Your task to perform on an android device: create a new album in the google photos Image 0: 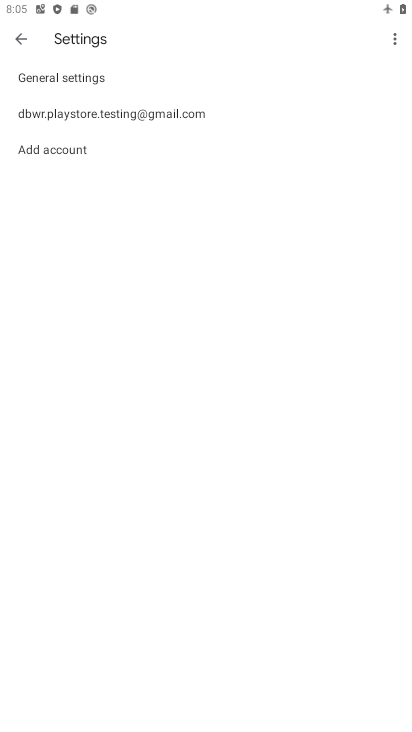
Step 0: press home button
Your task to perform on an android device: create a new album in the google photos Image 1: 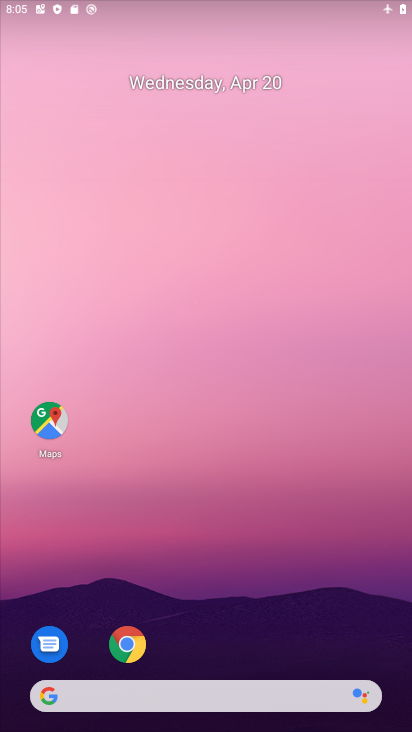
Step 1: drag from (342, 648) to (311, 429)
Your task to perform on an android device: create a new album in the google photos Image 2: 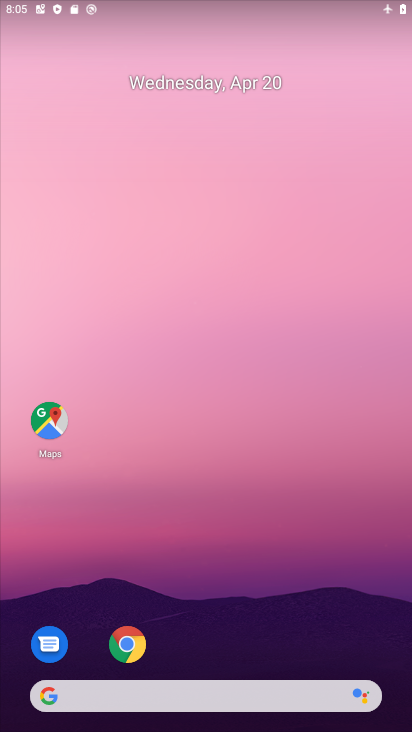
Step 2: drag from (300, 634) to (246, 28)
Your task to perform on an android device: create a new album in the google photos Image 3: 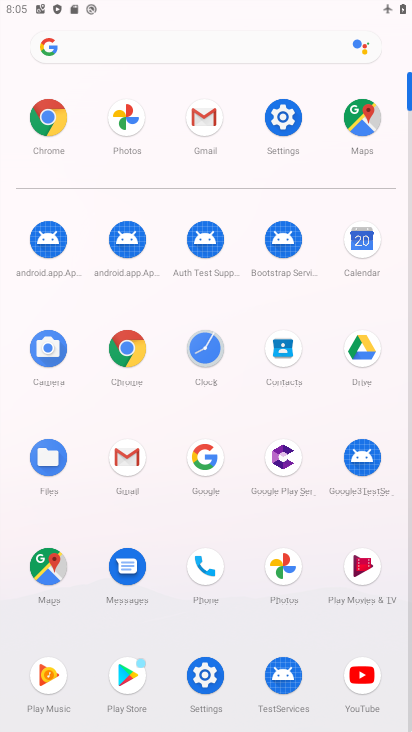
Step 3: click (279, 575)
Your task to perform on an android device: create a new album in the google photos Image 4: 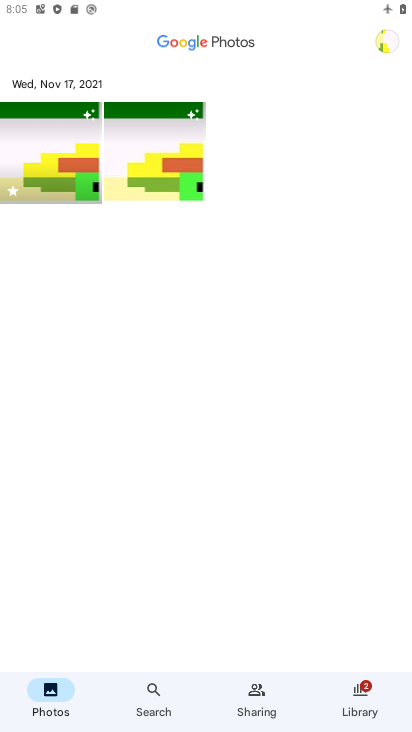
Step 4: click (31, 143)
Your task to perform on an android device: create a new album in the google photos Image 5: 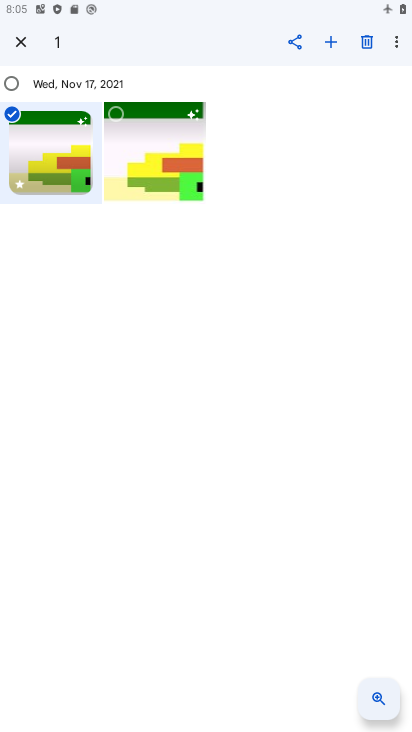
Step 5: click (331, 39)
Your task to perform on an android device: create a new album in the google photos Image 6: 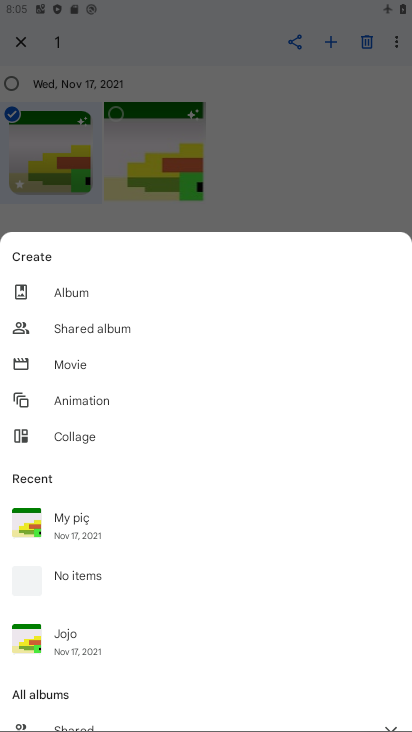
Step 6: click (87, 286)
Your task to perform on an android device: create a new album in the google photos Image 7: 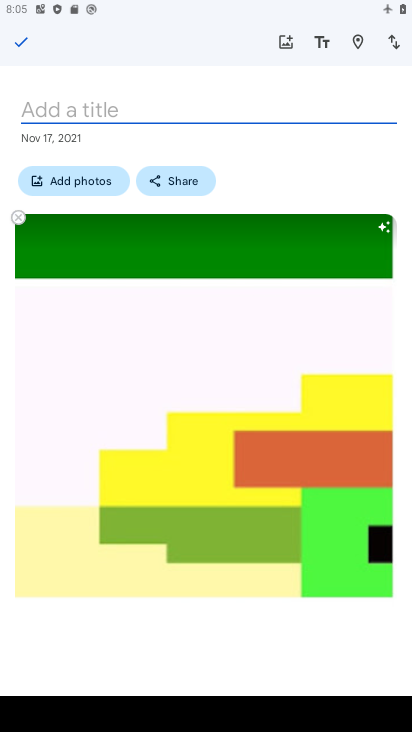
Step 7: type "Raw"
Your task to perform on an android device: create a new album in the google photos Image 8: 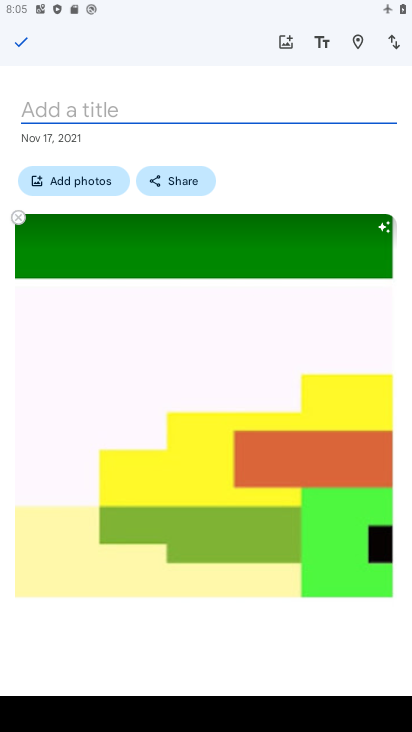
Step 8: click (27, 40)
Your task to perform on an android device: create a new album in the google photos Image 9: 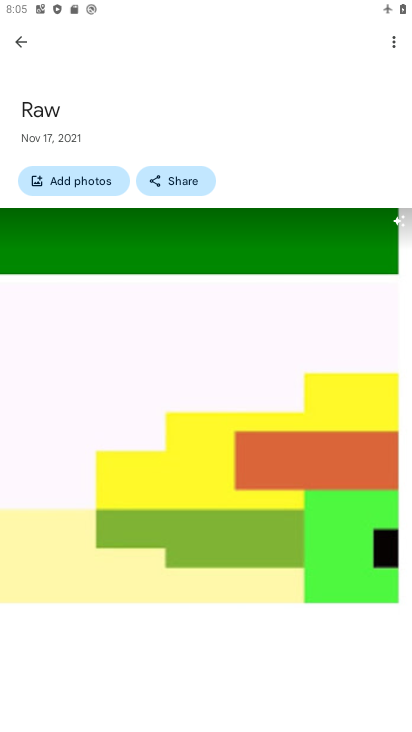
Step 9: task complete